Your task to perform on an android device: What's the weather? Image 0: 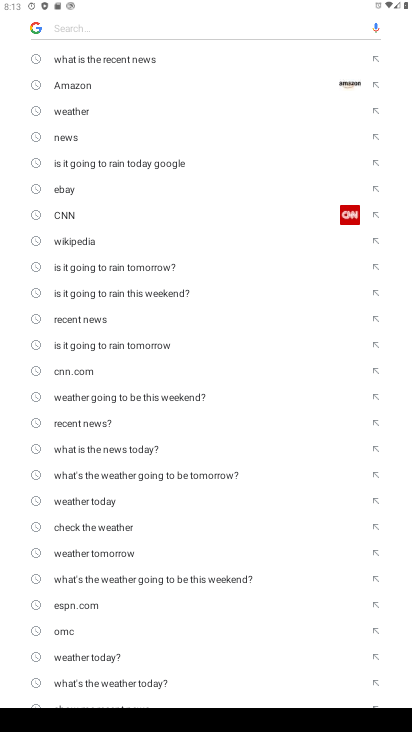
Step 0: press home button
Your task to perform on an android device: What's the weather? Image 1: 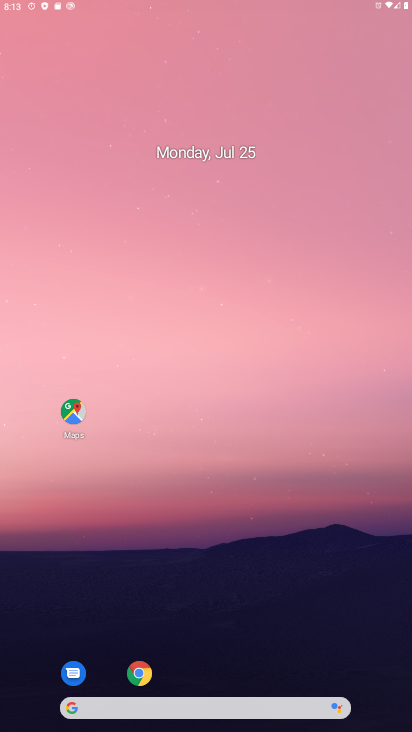
Step 1: drag from (369, 652) to (267, 112)
Your task to perform on an android device: What's the weather? Image 2: 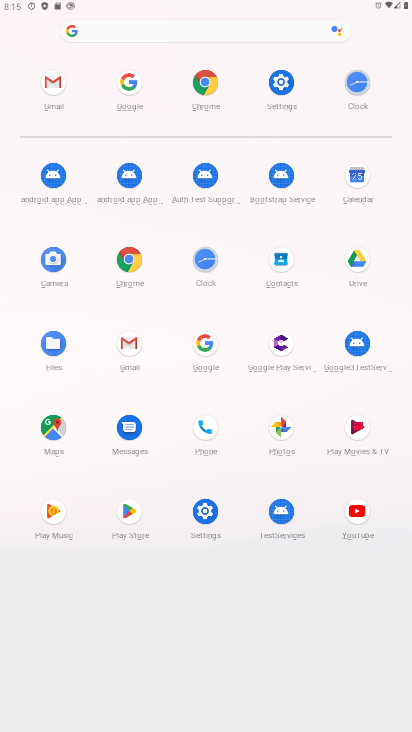
Step 2: click (214, 350)
Your task to perform on an android device: What's the weather? Image 3: 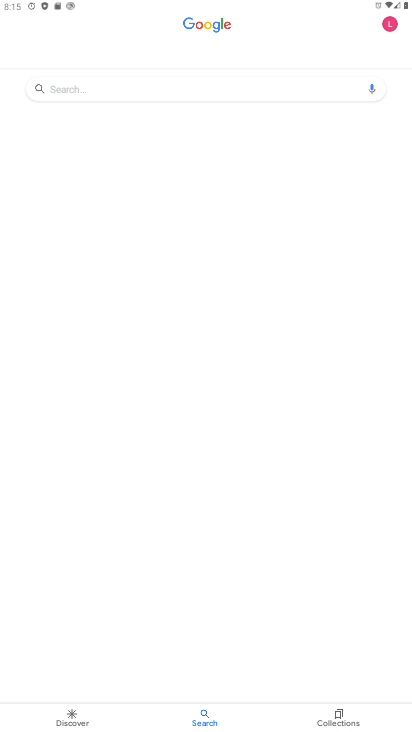
Step 3: click (88, 83)
Your task to perform on an android device: What's the weather? Image 4: 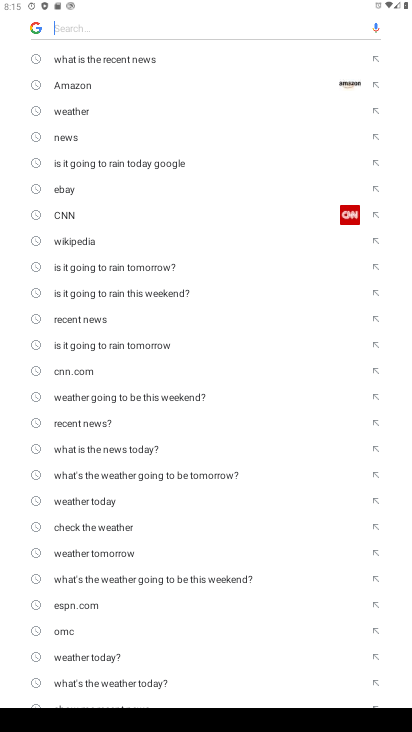
Step 4: type "What's the weather?"
Your task to perform on an android device: What's the weather? Image 5: 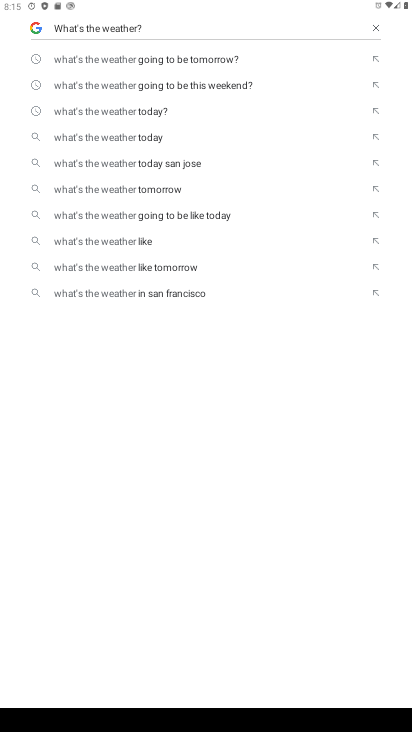
Step 5: task complete